Your task to perform on an android device: Open settings on Google Maps Image 0: 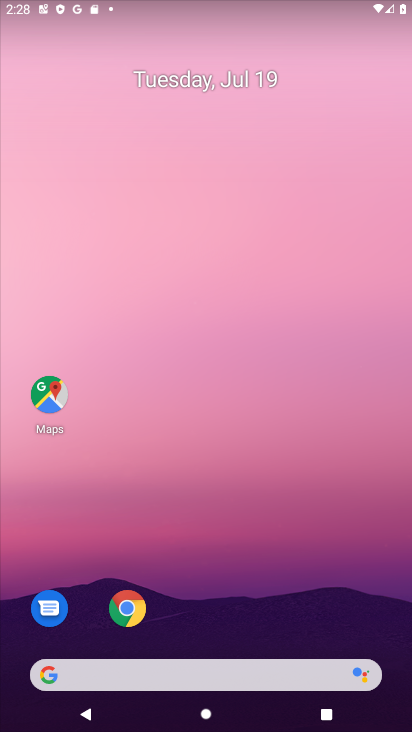
Step 0: drag from (298, 619) to (216, 67)
Your task to perform on an android device: Open settings on Google Maps Image 1: 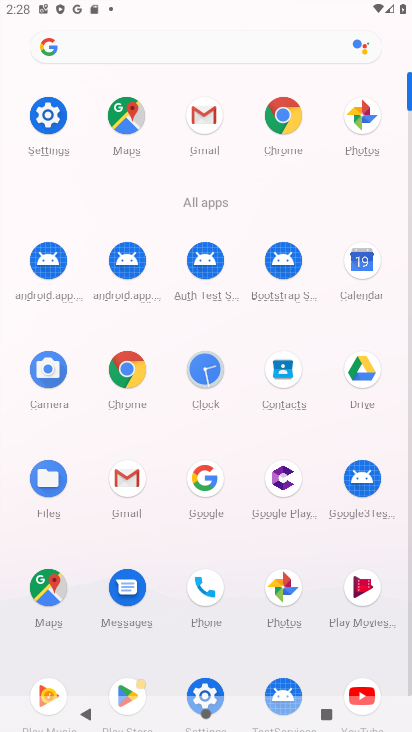
Step 1: click (123, 109)
Your task to perform on an android device: Open settings on Google Maps Image 2: 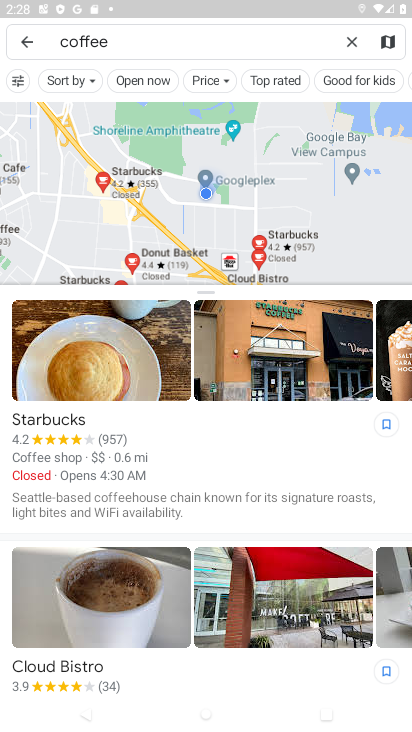
Step 2: click (24, 38)
Your task to perform on an android device: Open settings on Google Maps Image 3: 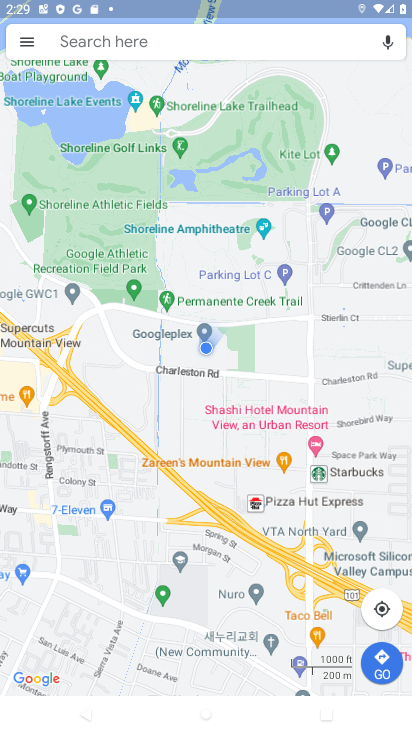
Step 3: click (24, 38)
Your task to perform on an android device: Open settings on Google Maps Image 4: 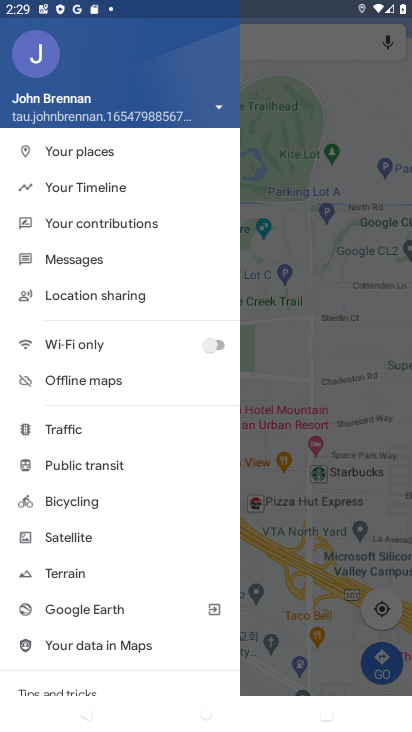
Step 4: drag from (107, 633) to (146, 316)
Your task to perform on an android device: Open settings on Google Maps Image 5: 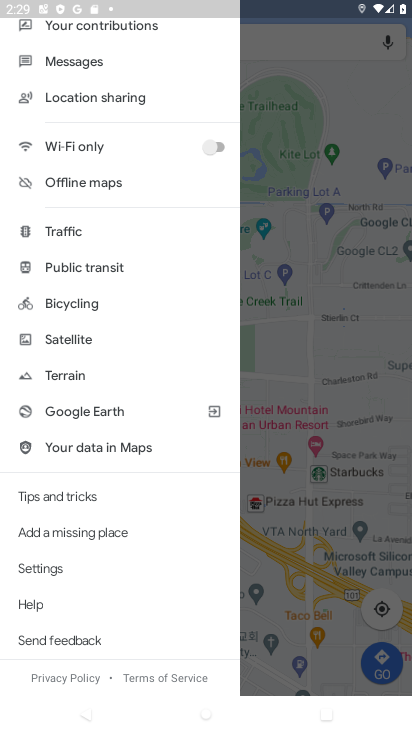
Step 5: click (51, 562)
Your task to perform on an android device: Open settings on Google Maps Image 6: 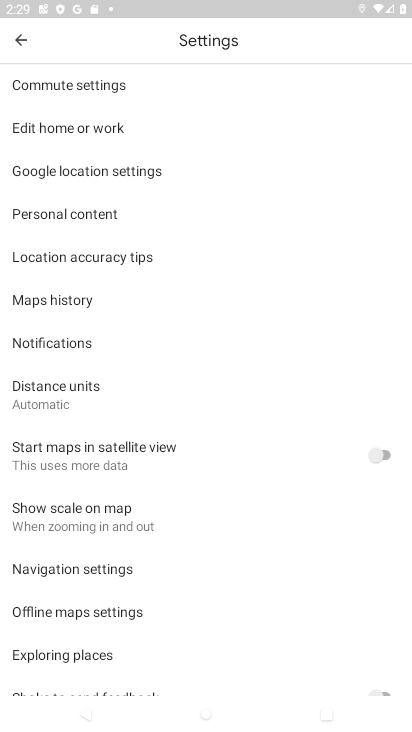
Step 6: task complete